Your task to perform on an android device: Go to Yahoo.com Image 0: 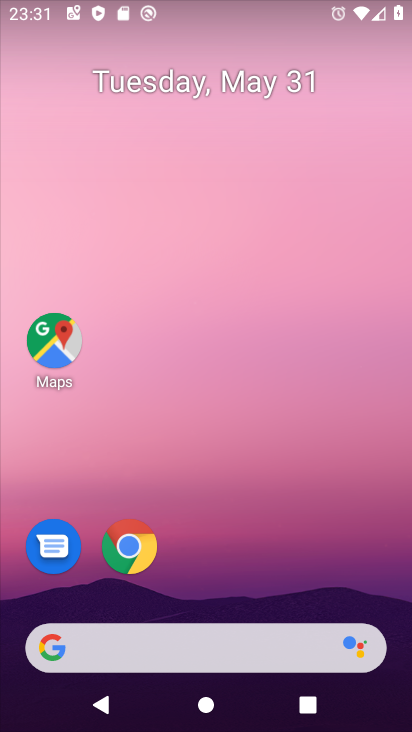
Step 0: click (126, 550)
Your task to perform on an android device: Go to Yahoo.com Image 1: 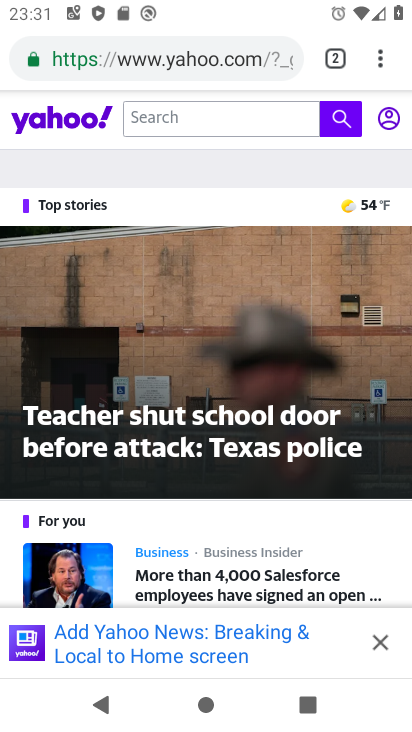
Step 1: task complete